Your task to perform on an android device: Open Google Maps and go to "Timeline" Image 0: 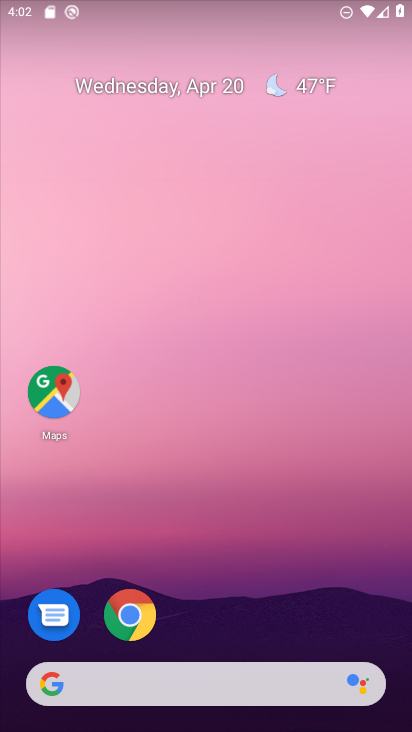
Step 0: click (53, 395)
Your task to perform on an android device: Open Google Maps and go to "Timeline" Image 1: 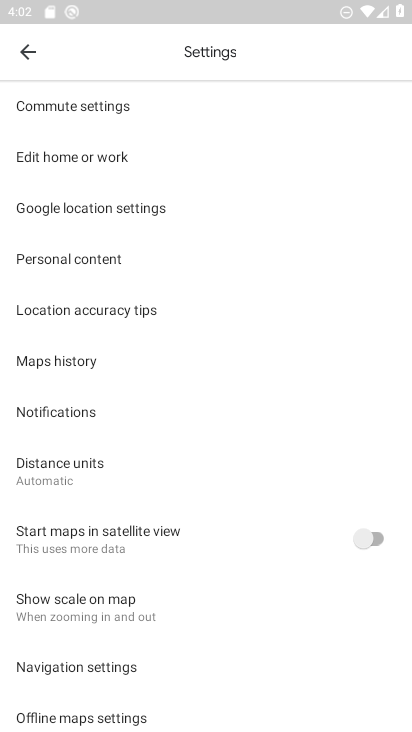
Step 1: click (25, 45)
Your task to perform on an android device: Open Google Maps and go to "Timeline" Image 2: 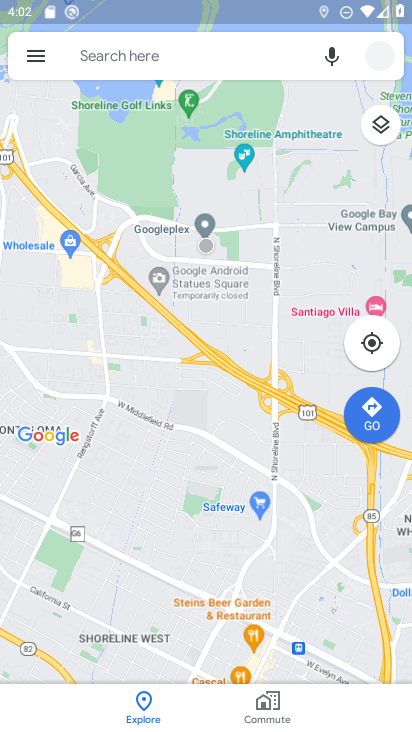
Step 2: click (31, 52)
Your task to perform on an android device: Open Google Maps and go to "Timeline" Image 3: 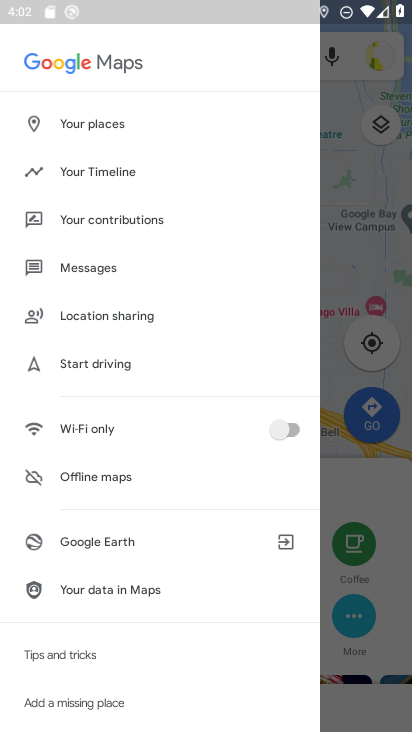
Step 3: click (113, 168)
Your task to perform on an android device: Open Google Maps and go to "Timeline" Image 4: 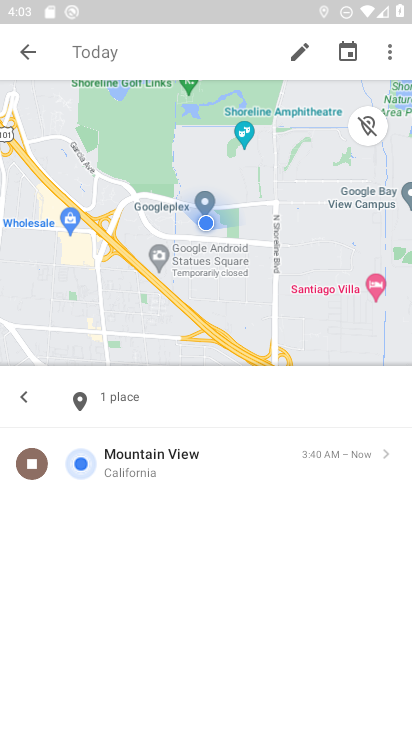
Step 4: task complete